Your task to perform on an android device: Open eBay Image 0: 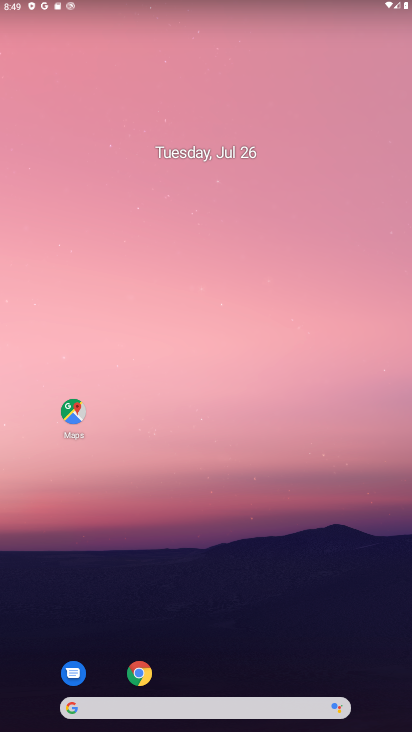
Step 0: click (259, 78)
Your task to perform on an android device: Open eBay Image 1: 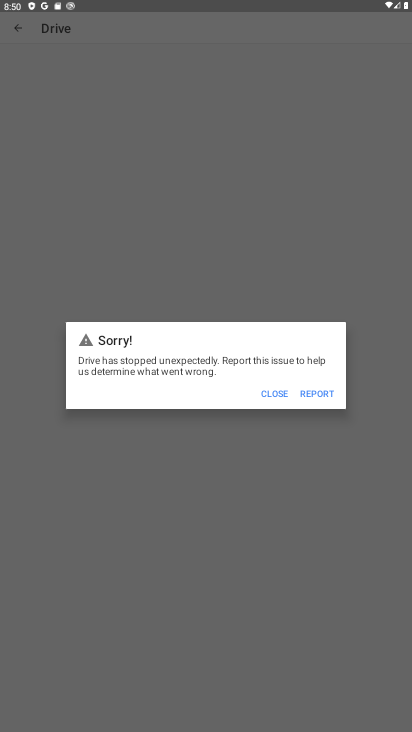
Step 1: click (270, 394)
Your task to perform on an android device: Open eBay Image 2: 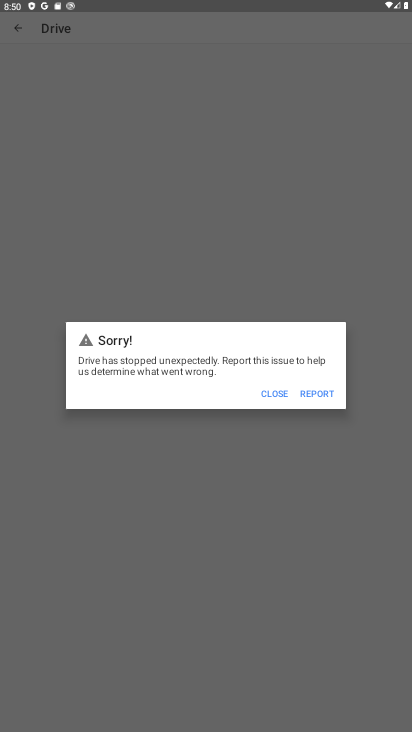
Step 2: click (270, 388)
Your task to perform on an android device: Open eBay Image 3: 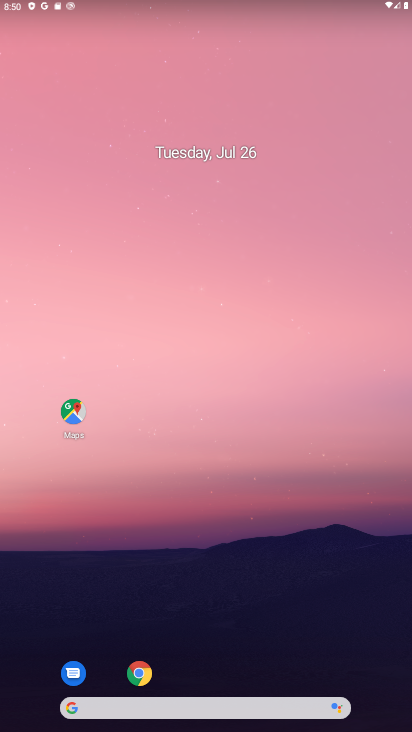
Step 3: drag from (239, 624) to (118, 28)
Your task to perform on an android device: Open eBay Image 4: 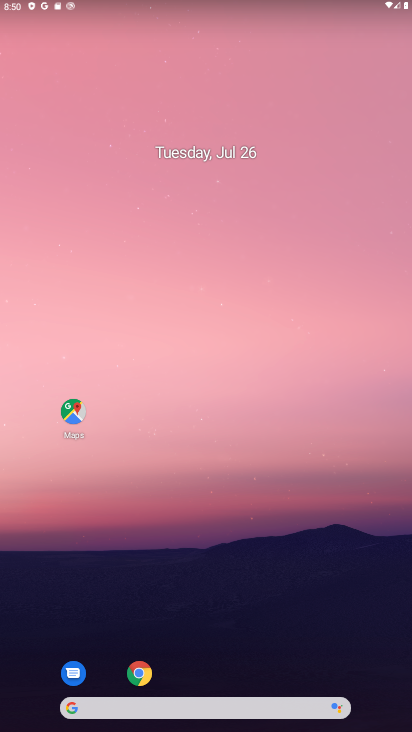
Step 4: drag from (180, 334) to (180, 33)
Your task to perform on an android device: Open eBay Image 5: 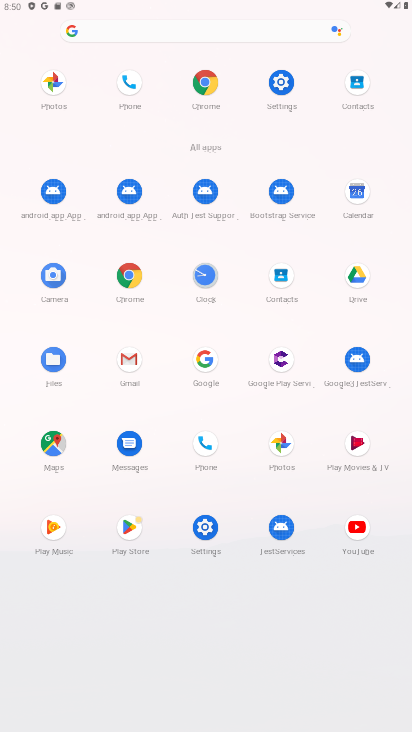
Step 5: click (121, 279)
Your task to perform on an android device: Open eBay Image 6: 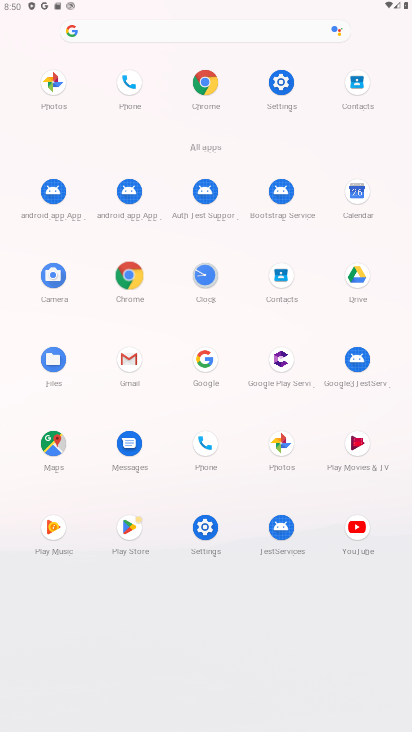
Step 6: click (128, 278)
Your task to perform on an android device: Open eBay Image 7: 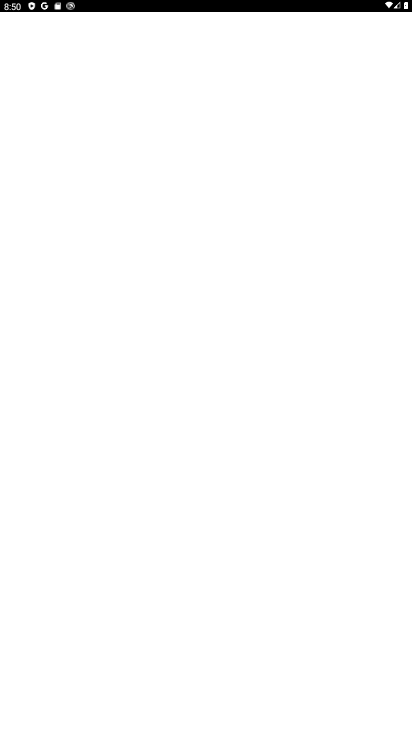
Step 7: click (129, 279)
Your task to perform on an android device: Open eBay Image 8: 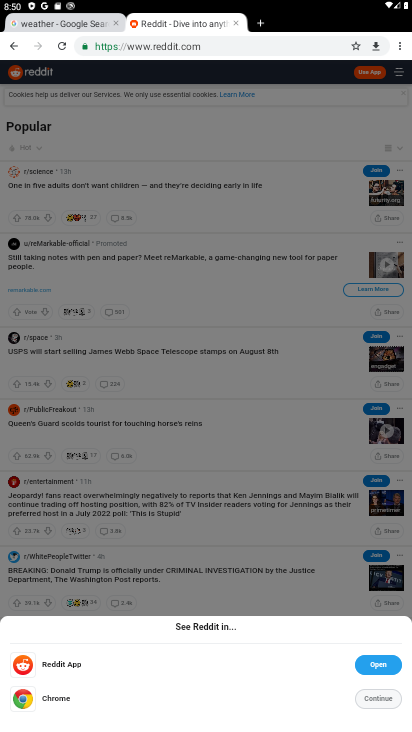
Step 8: drag from (400, 46) to (299, 44)
Your task to perform on an android device: Open eBay Image 9: 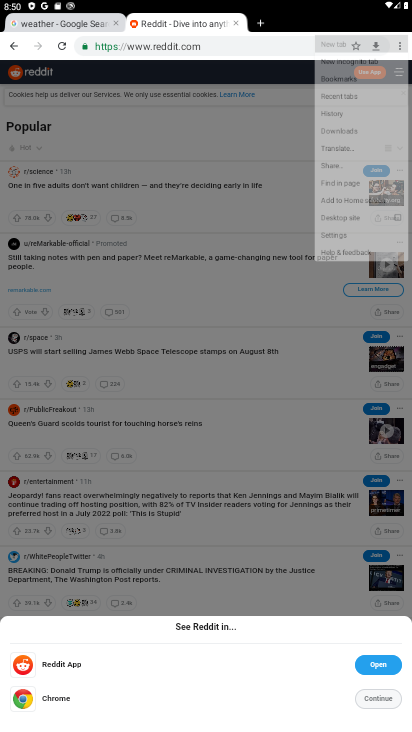
Step 9: click (299, 44)
Your task to perform on an android device: Open eBay Image 10: 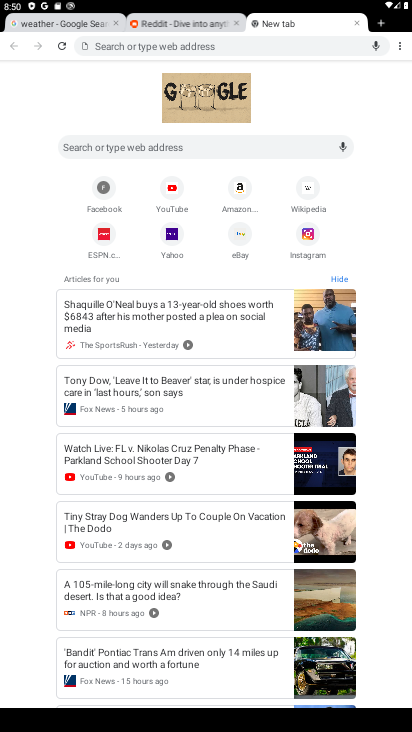
Step 10: click (245, 236)
Your task to perform on an android device: Open eBay Image 11: 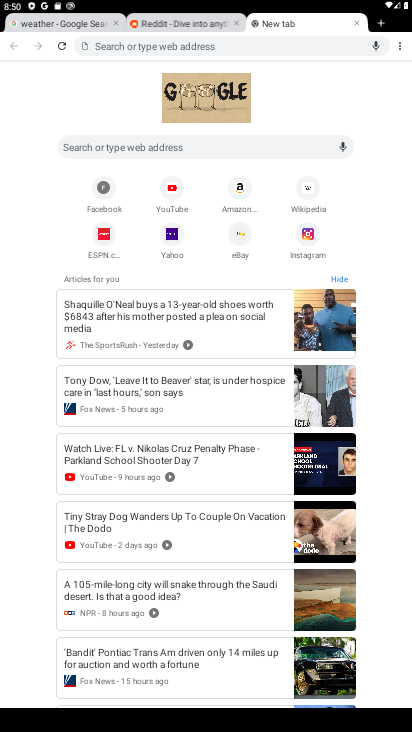
Step 11: click (243, 237)
Your task to perform on an android device: Open eBay Image 12: 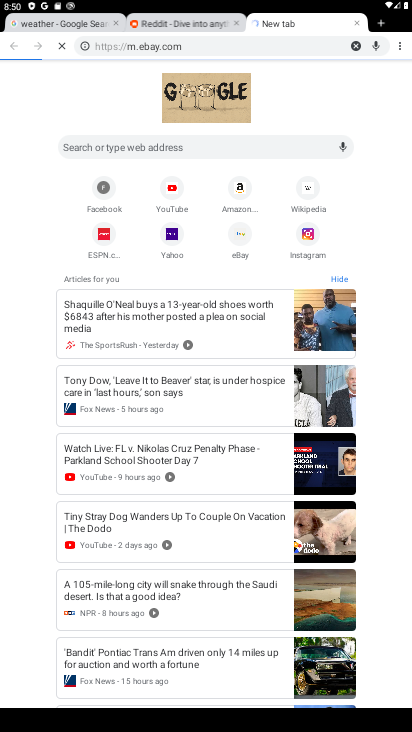
Step 12: click (243, 237)
Your task to perform on an android device: Open eBay Image 13: 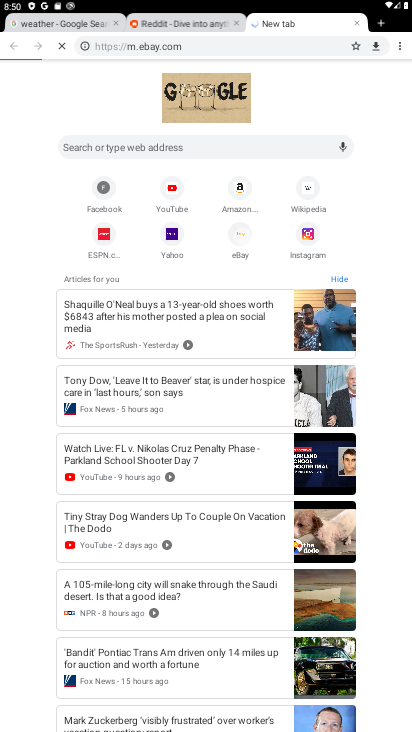
Step 13: click (243, 237)
Your task to perform on an android device: Open eBay Image 14: 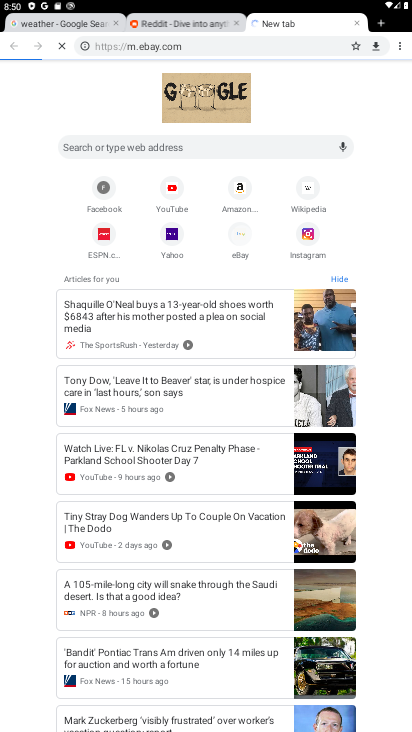
Step 14: click (243, 237)
Your task to perform on an android device: Open eBay Image 15: 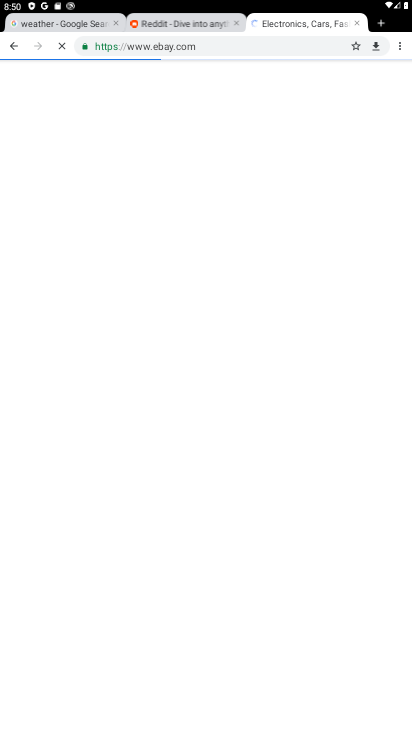
Step 15: click (242, 235)
Your task to perform on an android device: Open eBay Image 16: 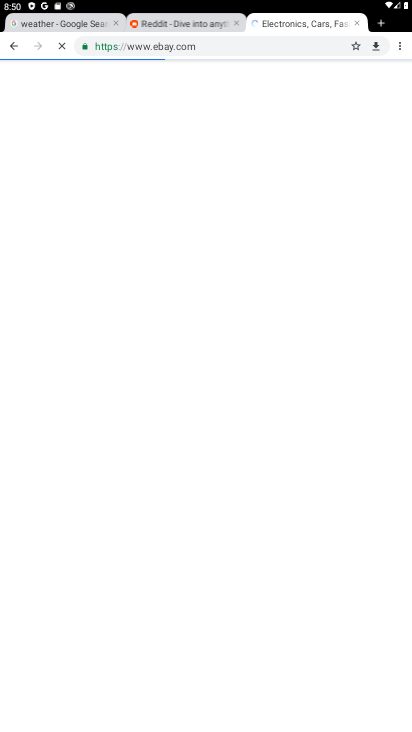
Step 16: click (242, 235)
Your task to perform on an android device: Open eBay Image 17: 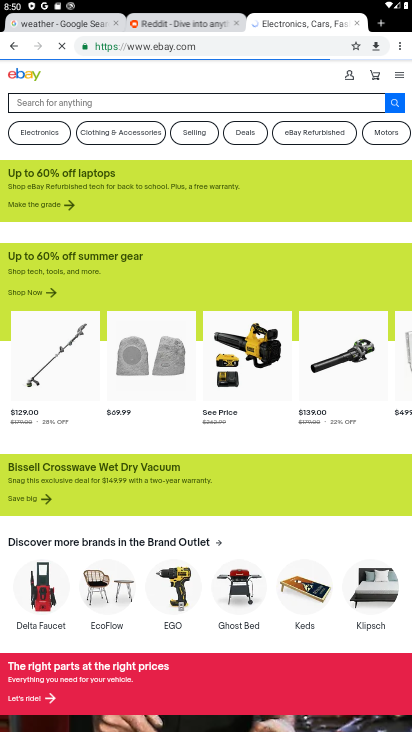
Step 17: task complete